Your task to perform on an android device: Open Google Chrome Image 0: 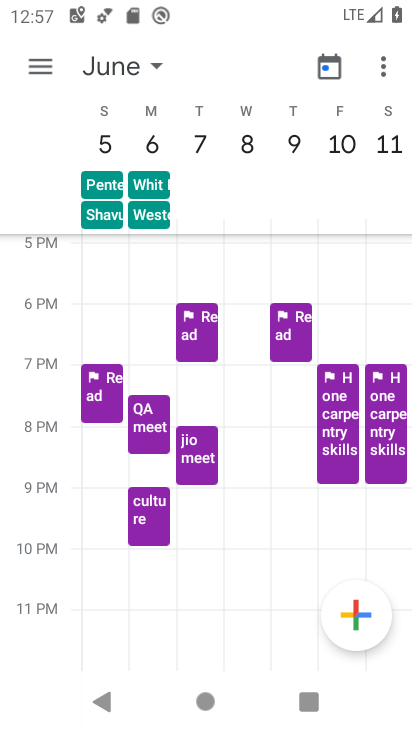
Step 0: press home button
Your task to perform on an android device: Open Google Chrome Image 1: 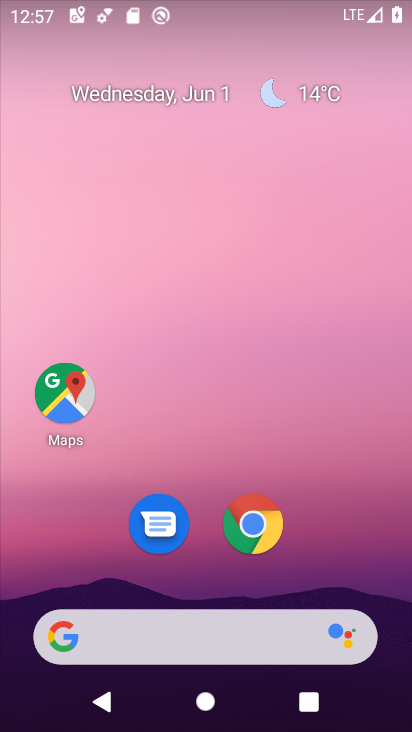
Step 1: click (256, 527)
Your task to perform on an android device: Open Google Chrome Image 2: 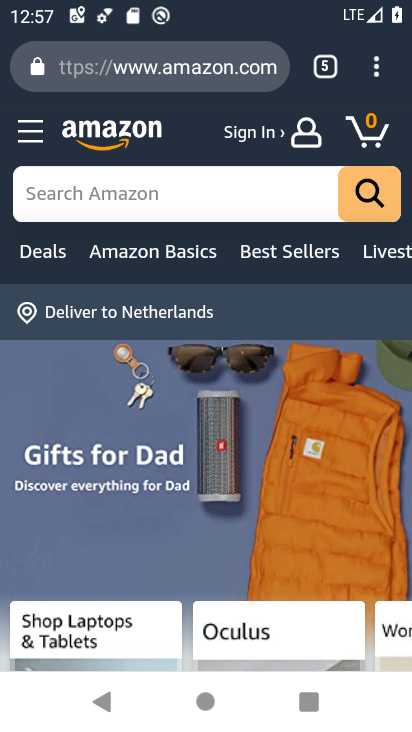
Step 2: click (378, 62)
Your task to perform on an android device: Open Google Chrome Image 3: 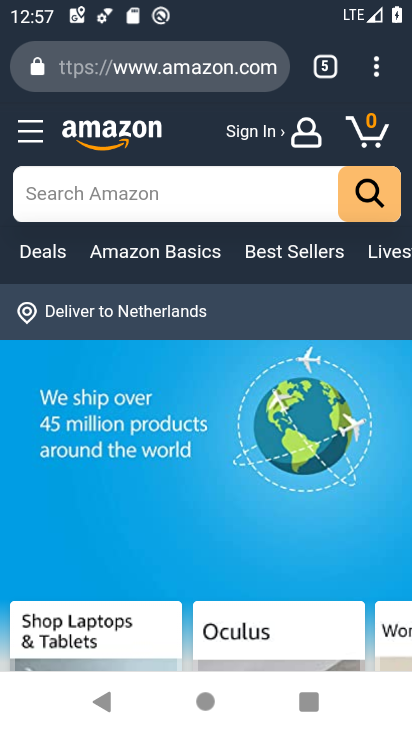
Step 3: click (373, 66)
Your task to perform on an android device: Open Google Chrome Image 4: 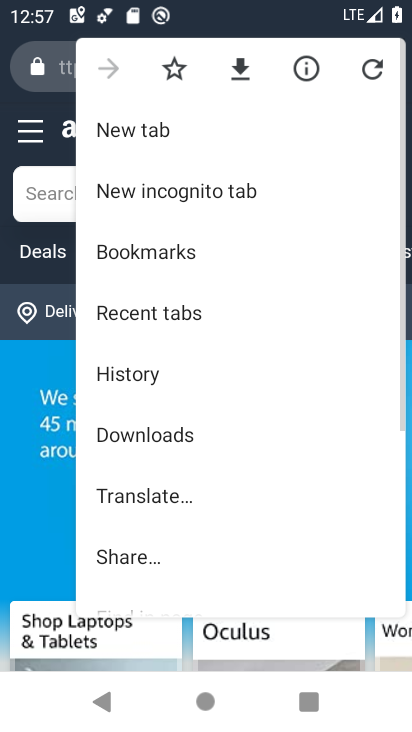
Step 4: click (254, 134)
Your task to perform on an android device: Open Google Chrome Image 5: 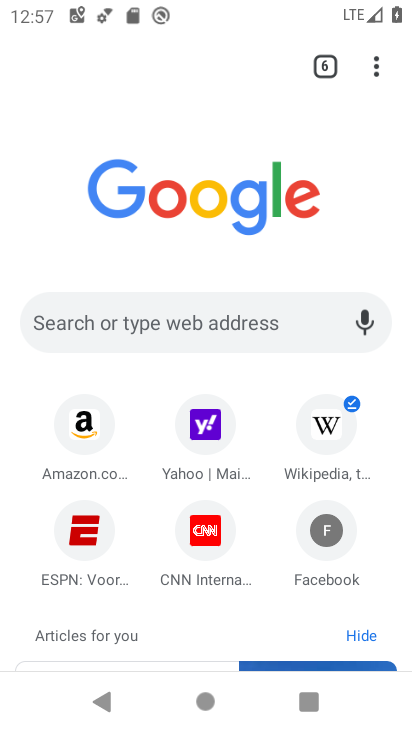
Step 5: task complete